Your task to perform on an android device: change the upload size in google photos Image 0: 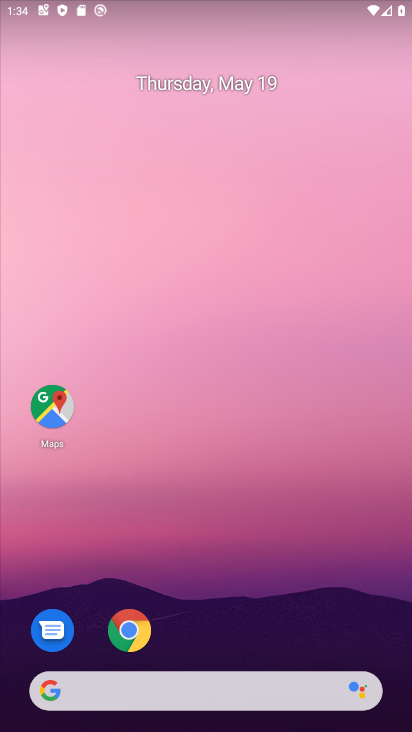
Step 0: drag from (389, 629) to (312, 111)
Your task to perform on an android device: change the upload size in google photos Image 1: 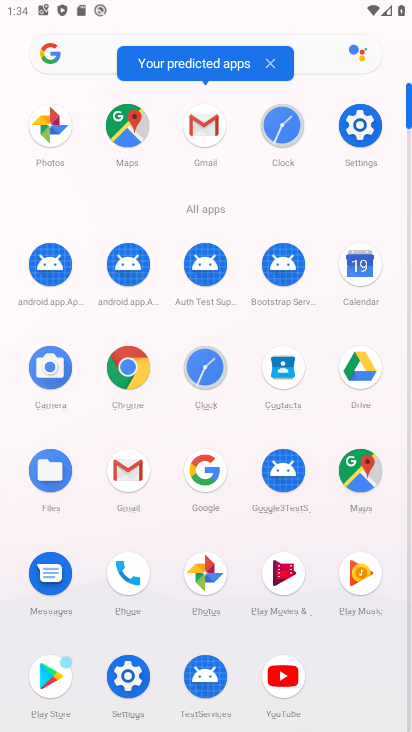
Step 1: click (408, 701)
Your task to perform on an android device: change the upload size in google photos Image 2: 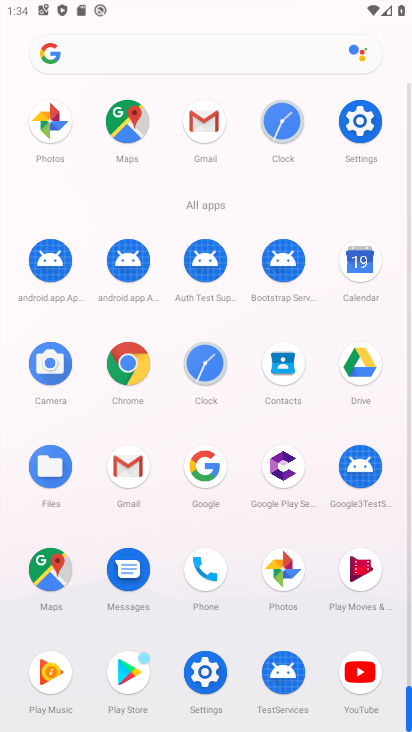
Step 2: click (202, 571)
Your task to perform on an android device: change the upload size in google photos Image 3: 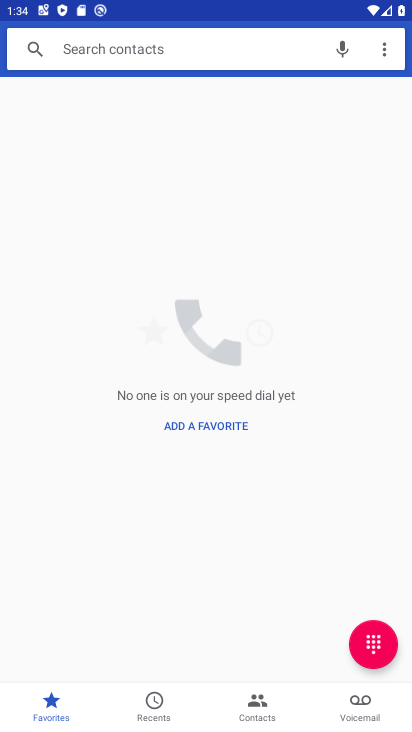
Step 3: press home button
Your task to perform on an android device: change the upload size in google photos Image 4: 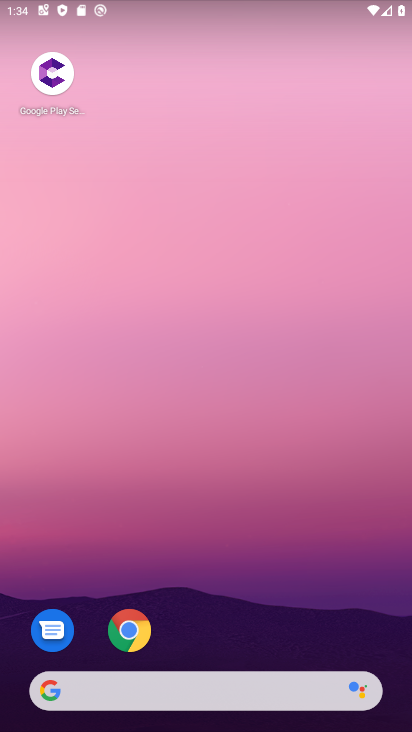
Step 4: drag from (382, 651) to (324, 146)
Your task to perform on an android device: change the upload size in google photos Image 5: 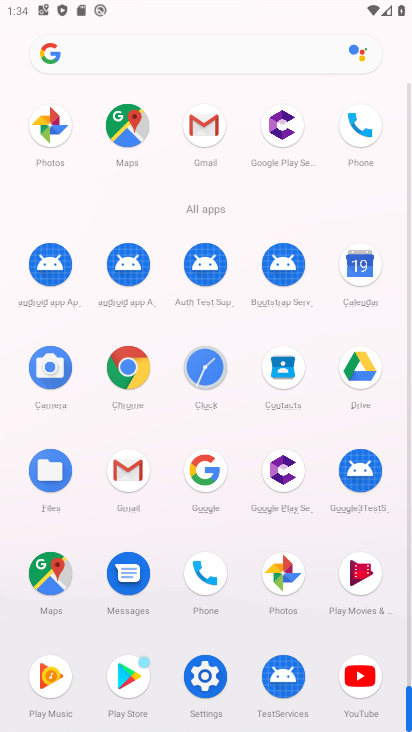
Step 5: click (280, 576)
Your task to perform on an android device: change the upload size in google photos Image 6: 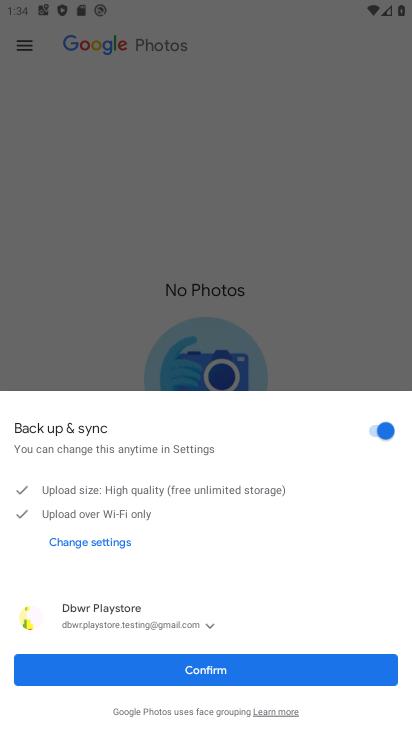
Step 6: click (207, 667)
Your task to perform on an android device: change the upload size in google photos Image 7: 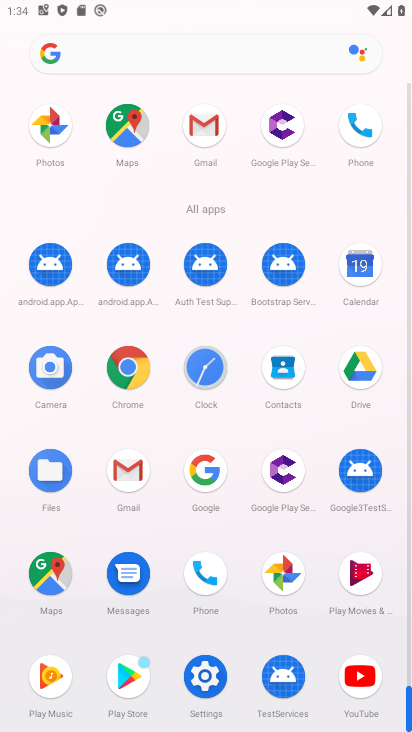
Step 7: click (281, 571)
Your task to perform on an android device: change the upload size in google photos Image 8: 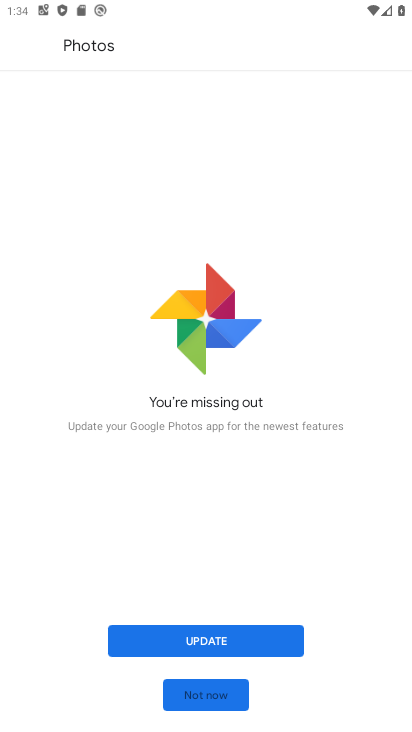
Step 8: click (200, 641)
Your task to perform on an android device: change the upload size in google photos Image 9: 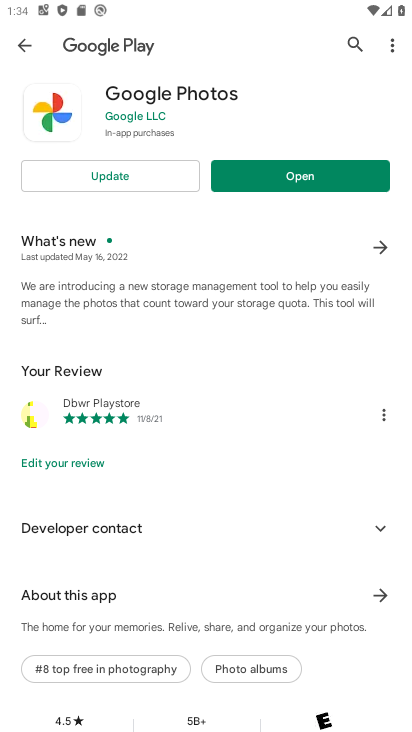
Step 9: click (131, 180)
Your task to perform on an android device: change the upload size in google photos Image 10: 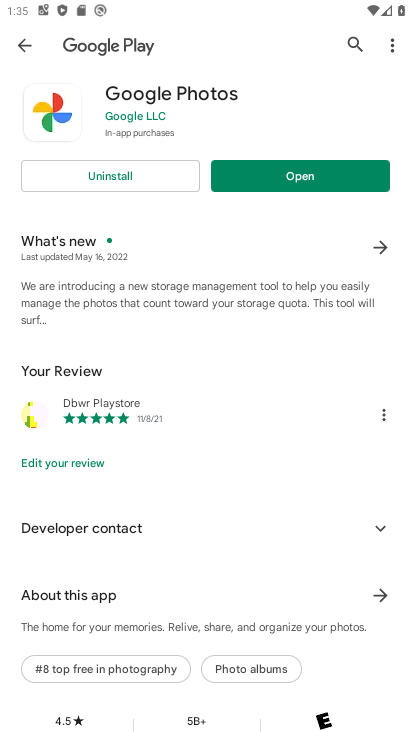
Step 10: click (293, 173)
Your task to perform on an android device: change the upload size in google photos Image 11: 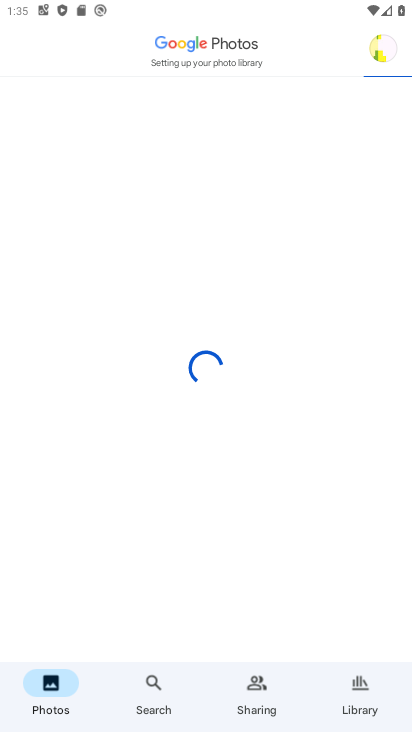
Step 11: click (379, 45)
Your task to perform on an android device: change the upload size in google photos Image 12: 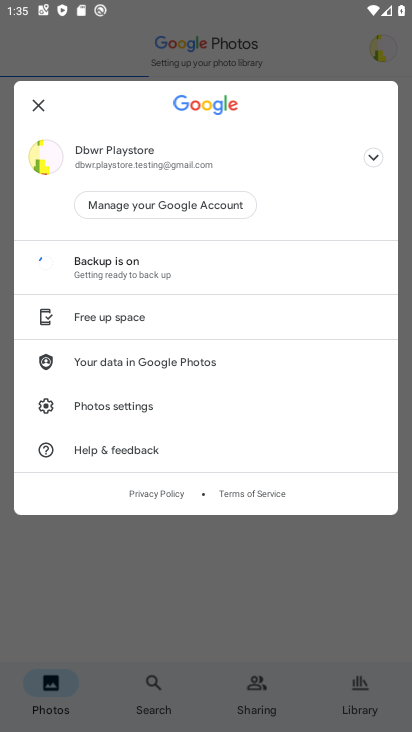
Step 12: click (99, 403)
Your task to perform on an android device: change the upload size in google photos Image 13: 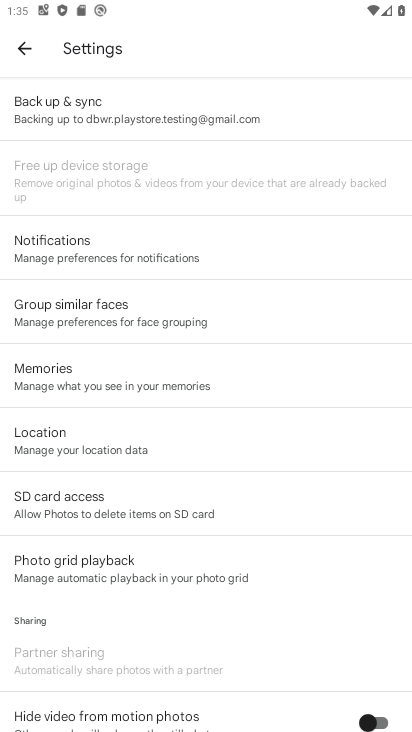
Step 13: click (80, 107)
Your task to perform on an android device: change the upload size in google photos Image 14: 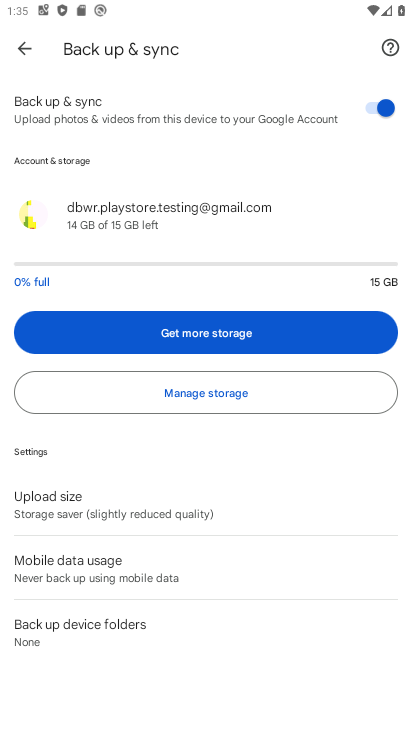
Step 14: click (73, 513)
Your task to perform on an android device: change the upload size in google photos Image 15: 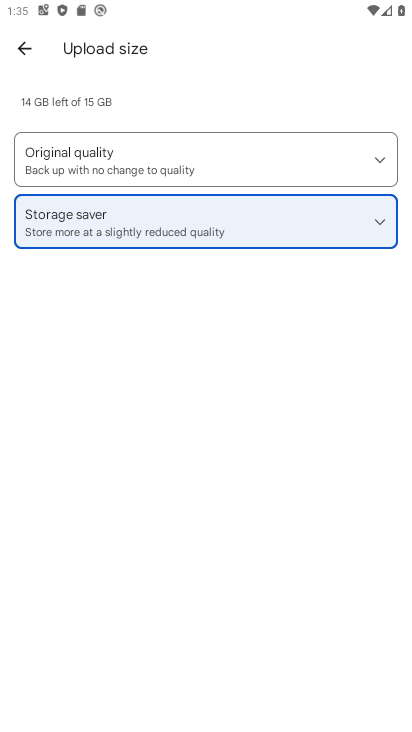
Step 15: click (198, 159)
Your task to perform on an android device: change the upload size in google photos Image 16: 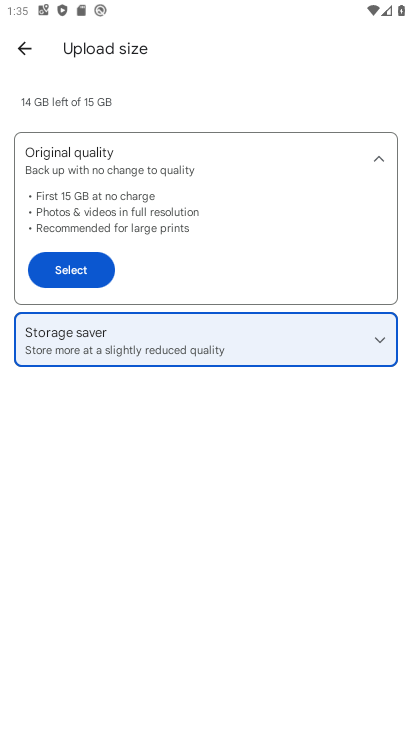
Step 16: click (67, 275)
Your task to perform on an android device: change the upload size in google photos Image 17: 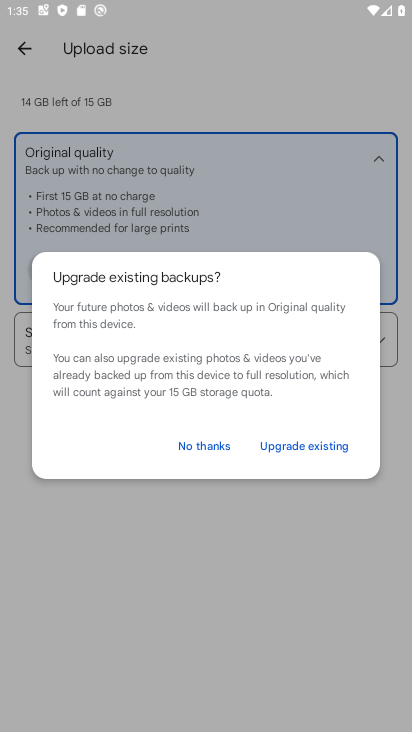
Step 17: click (201, 442)
Your task to perform on an android device: change the upload size in google photos Image 18: 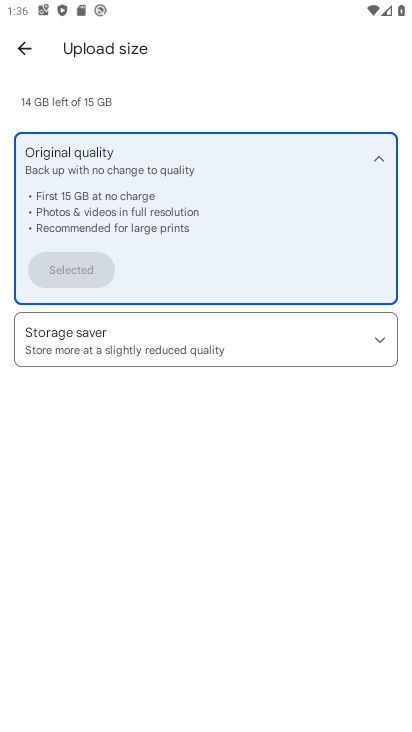
Step 18: task complete